Your task to perform on an android device: toggle data saver in the chrome app Image 0: 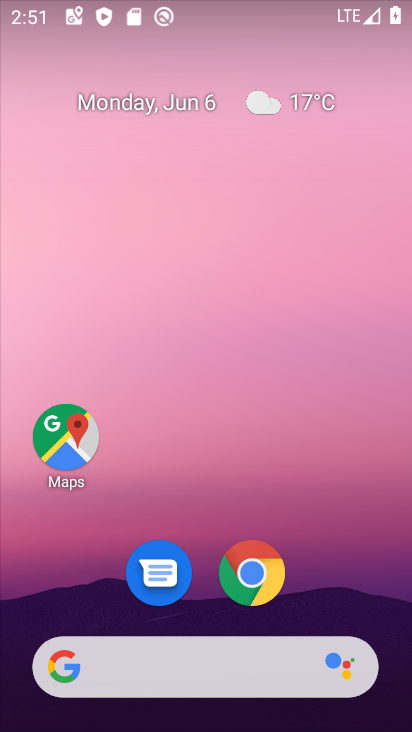
Step 0: drag from (369, 601) to (360, 171)
Your task to perform on an android device: toggle data saver in the chrome app Image 1: 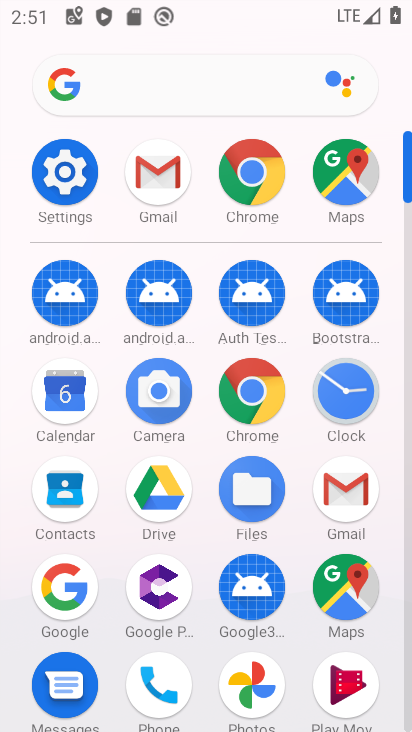
Step 1: click (278, 401)
Your task to perform on an android device: toggle data saver in the chrome app Image 2: 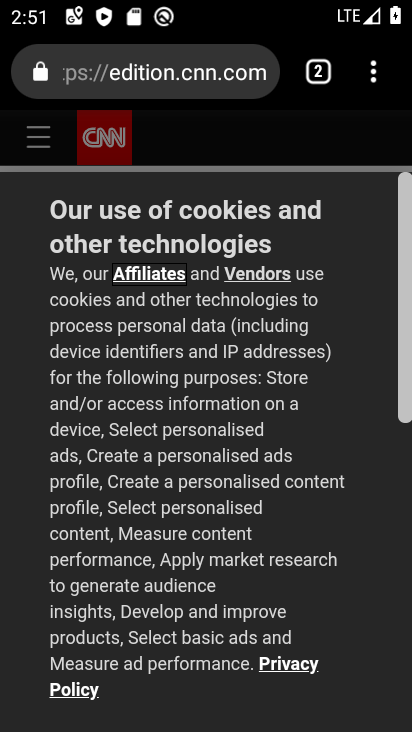
Step 2: click (374, 85)
Your task to perform on an android device: toggle data saver in the chrome app Image 3: 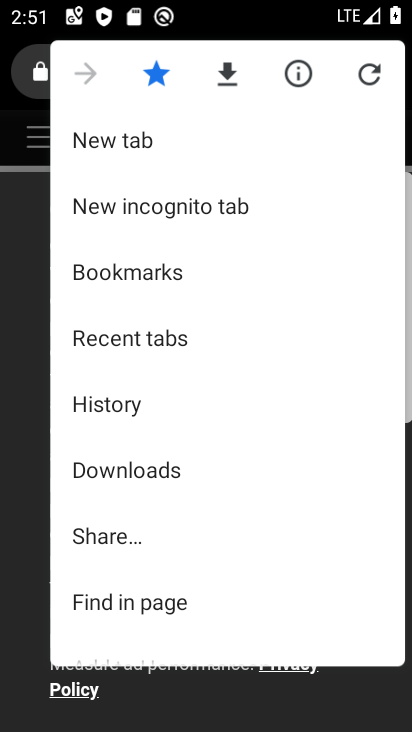
Step 3: drag from (298, 388) to (300, 290)
Your task to perform on an android device: toggle data saver in the chrome app Image 4: 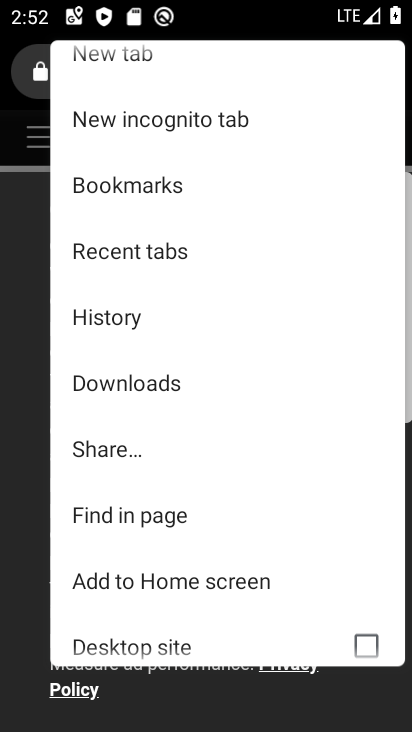
Step 4: drag from (307, 434) to (325, 312)
Your task to perform on an android device: toggle data saver in the chrome app Image 5: 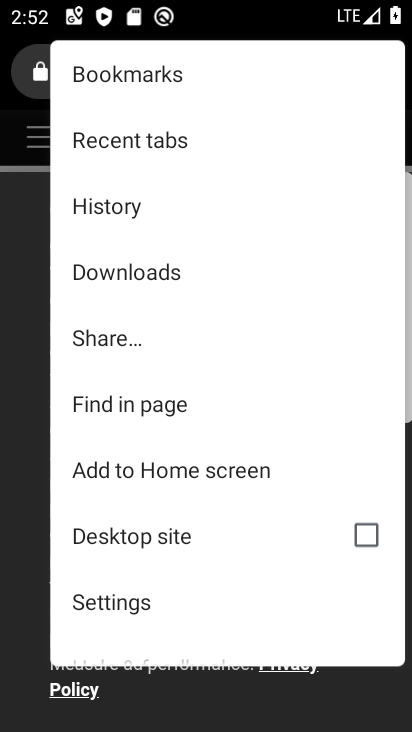
Step 5: click (154, 615)
Your task to perform on an android device: toggle data saver in the chrome app Image 6: 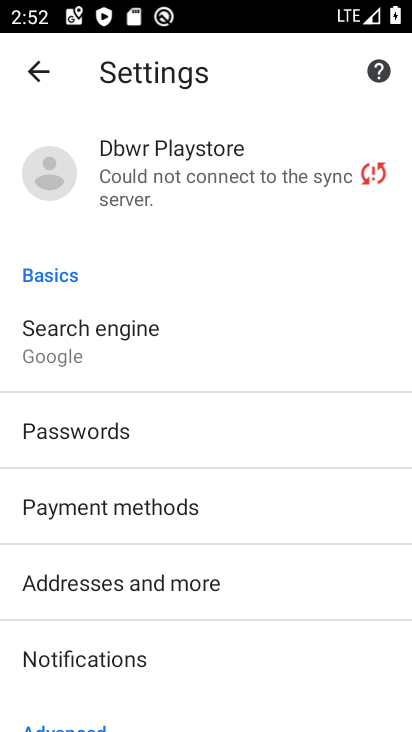
Step 6: drag from (322, 531) to (339, 440)
Your task to perform on an android device: toggle data saver in the chrome app Image 7: 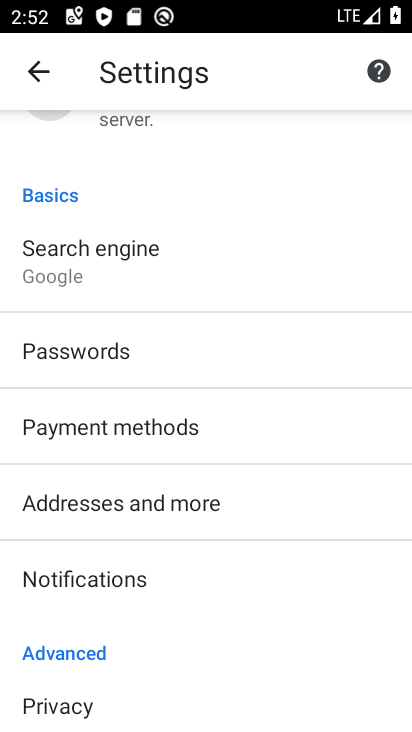
Step 7: drag from (330, 558) to (346, 467)
Your task to perform on an android device: toggle data saver in the chrome app Image 8: 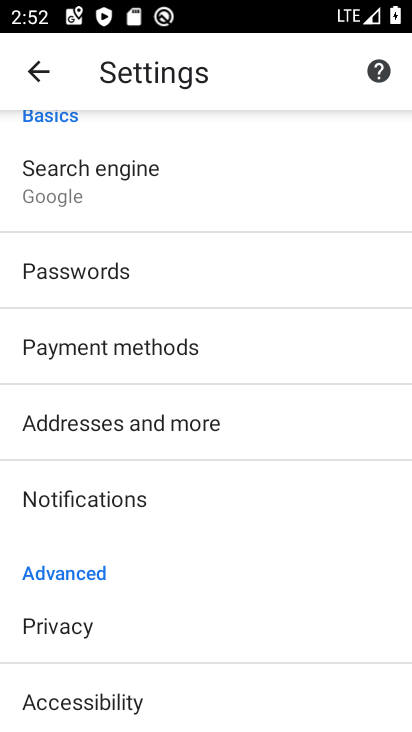
Step 8: drag from (341, 543) to (342, 464)
Your task to perform on an android device: toggle data saver in the chrome app Image 9: 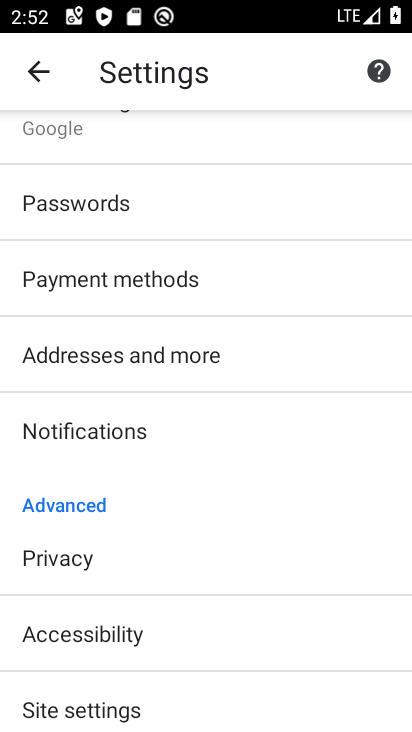
Step 9: drag from (330, 568) to (341, 466)
Your task to perform on an android device: toggle data saver in the chrome app Image 10: 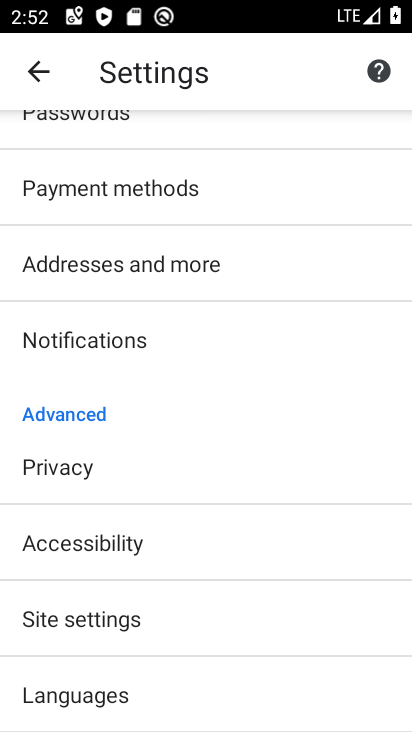
Step 10: drag from (341, 578) to (348, 478)
Your task to perform on an android device: toggle data saver in the chrome app Image 11: 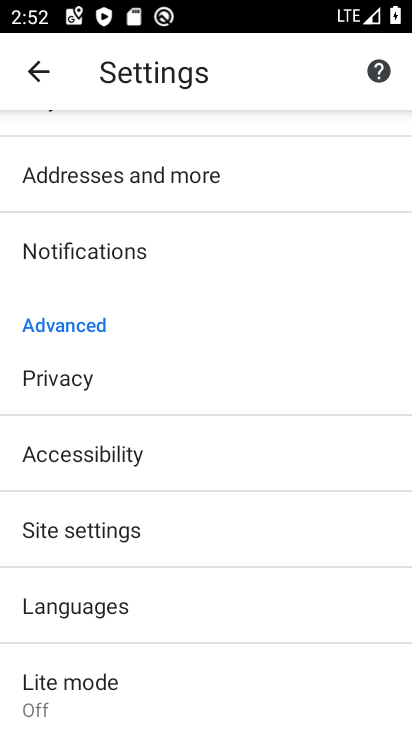
Step 11: drag from (342, 591) to (350, 391)
Your task to perform on an android device: toggle data saver in the chrome app Image 12: 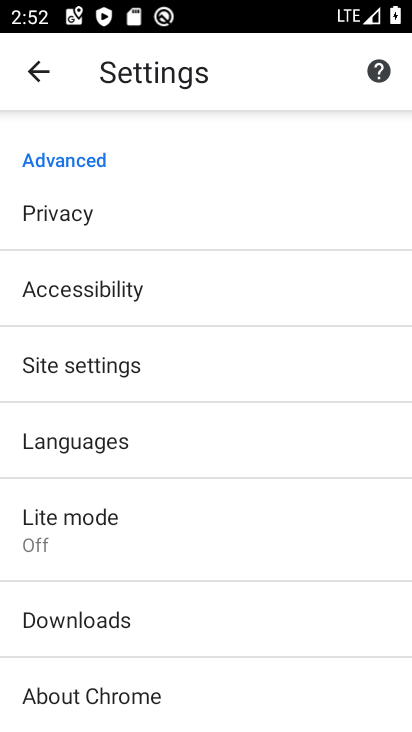
Step 12: click (300, 525)
Your task to perform on an android device: toggle data saver in the chrome app Image 13: 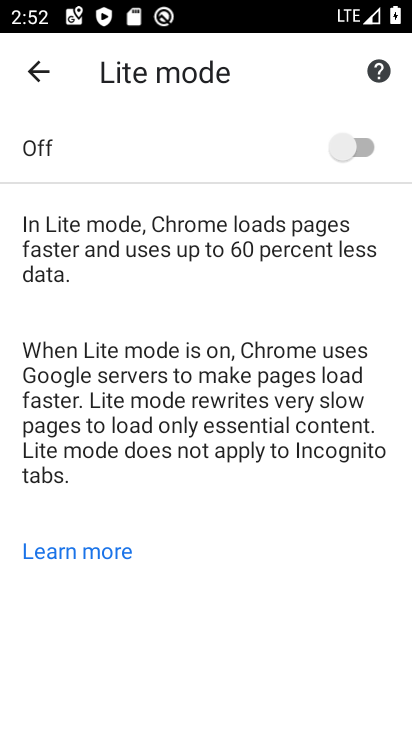
Step 13: click (342, 151)
Your task to perform on an android device: toggle data saver in the chrome app Image 14: 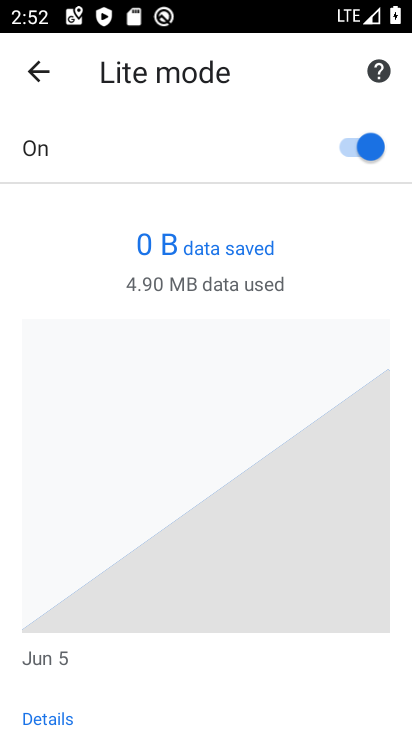
Step 14: task complete